Your task to perform on an android device: uninstall "ColorNote Notepad Notes" Image 0: 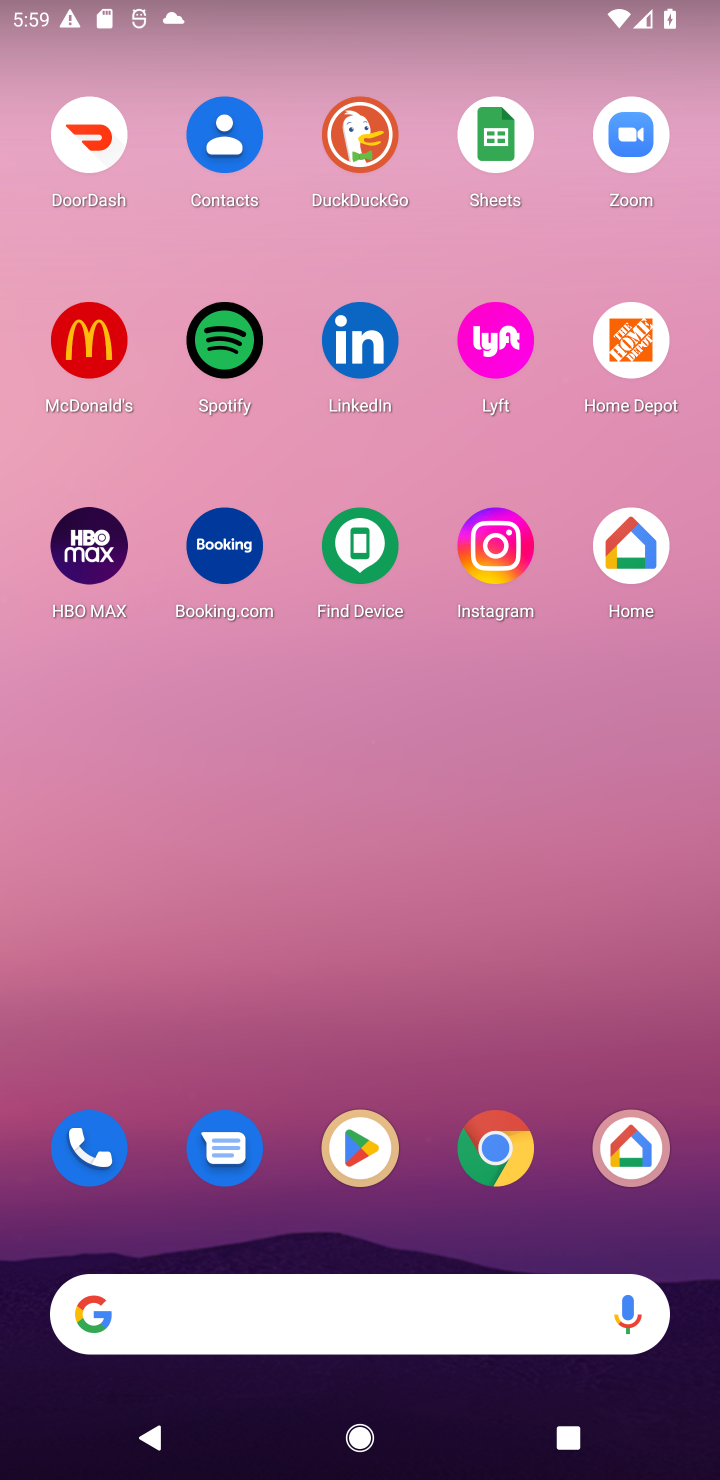
Step 0: drag from (394, 1086) to (222, 2)
Your task to perform on an android device: uninstall "ColorNote Notepad Notes" Image 1: 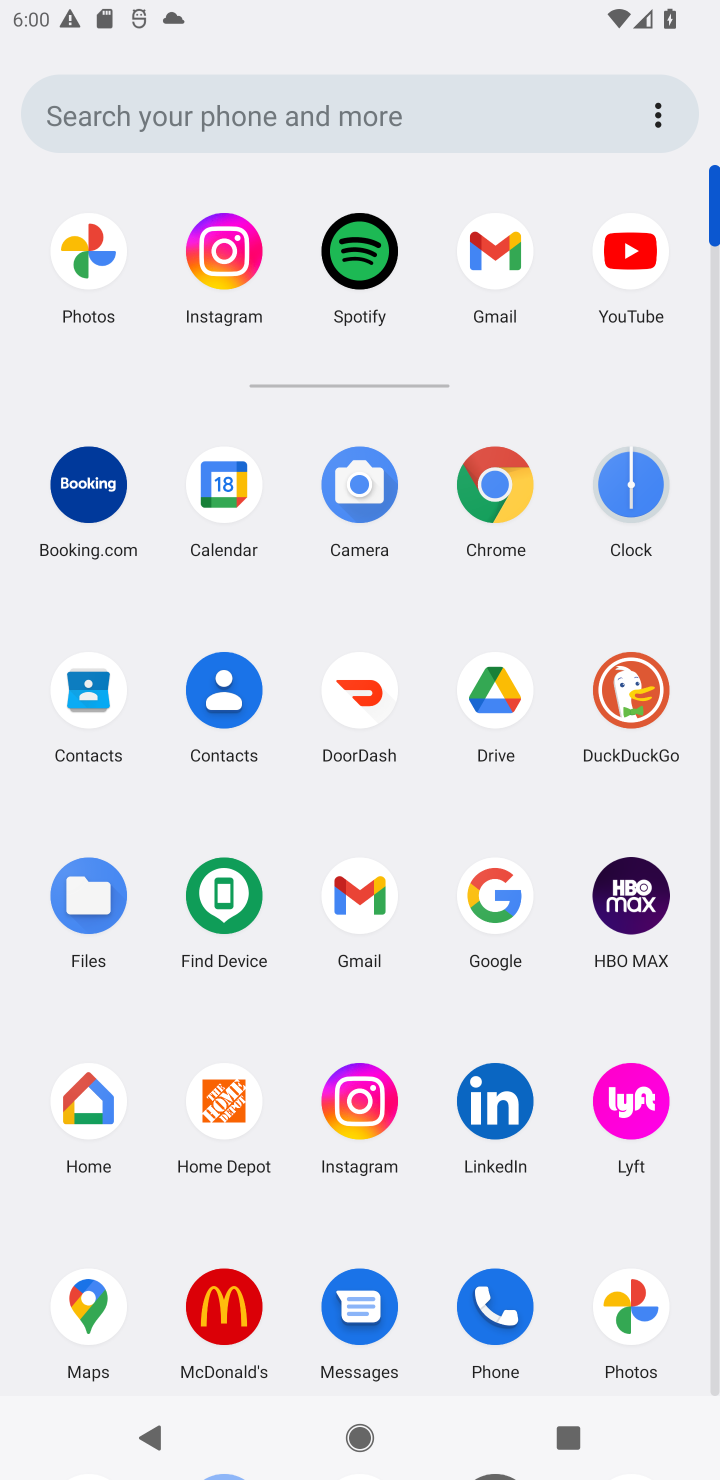
Step 1: drag from (590, 1243) to (416, 335)
Your task to perform on an android device: uninstall "ColorNote Notepad Notes" Image 2: 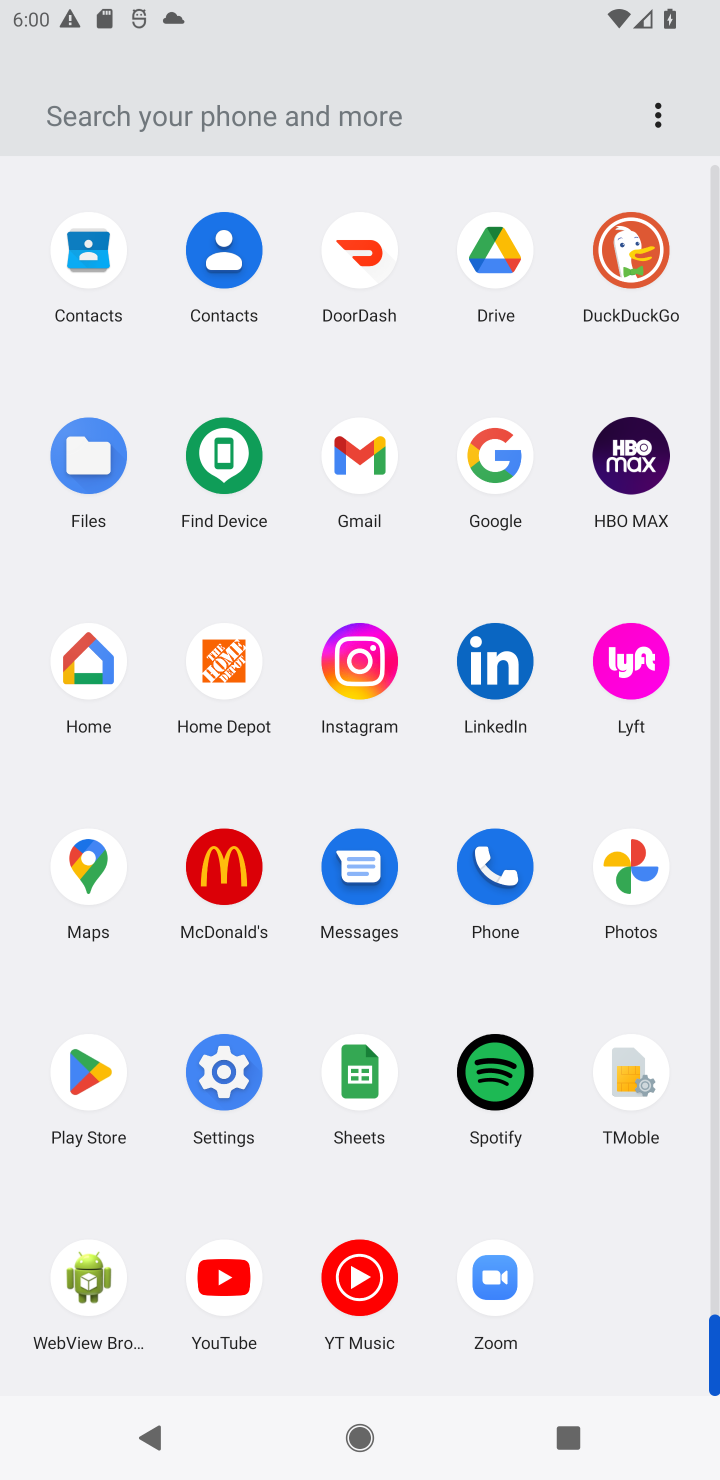
Step 2: click (80, 1072)
Your task to perform on an android device: uninstall "ColorNote Notepad Notes" Image 3: 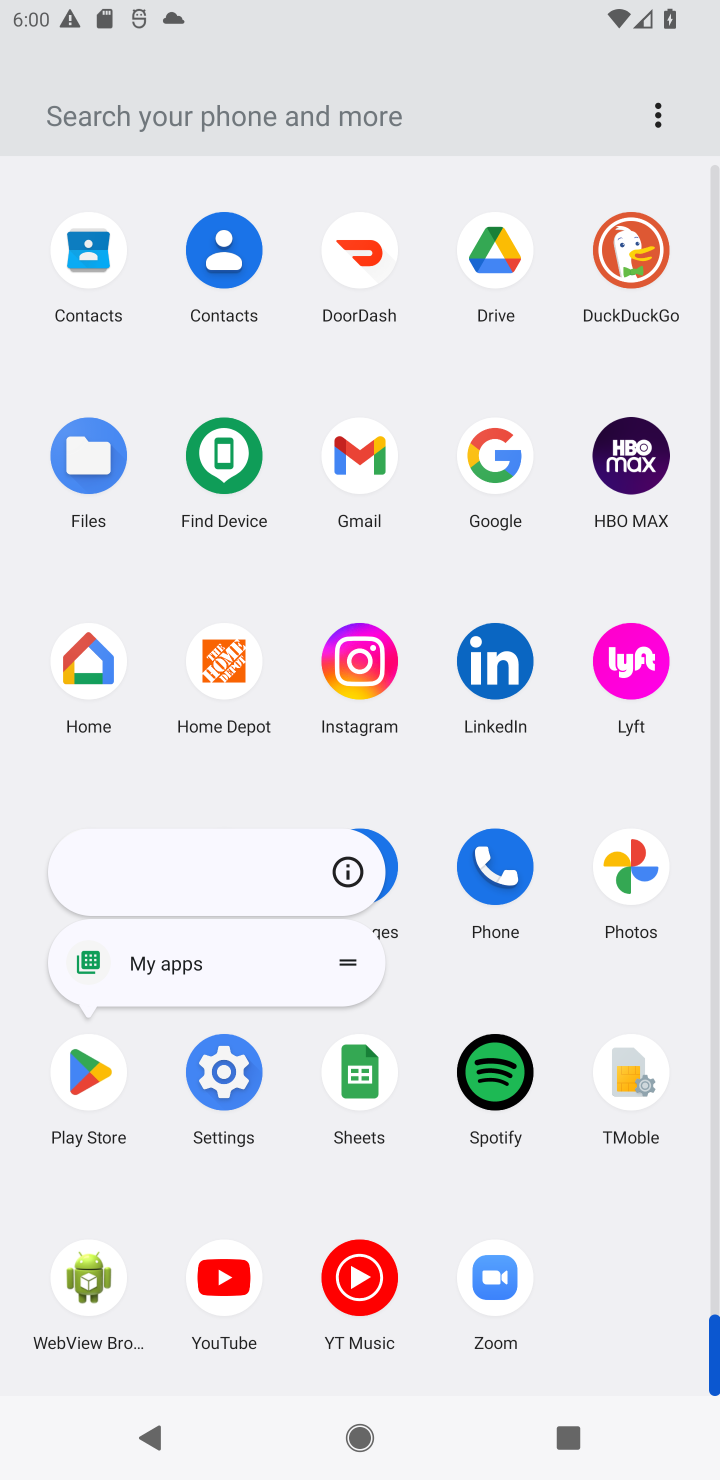
Step 3: click (81, 1073)
Your task to perform on an android device: uninstall "ColorNote Notepad Notes" Image 4: 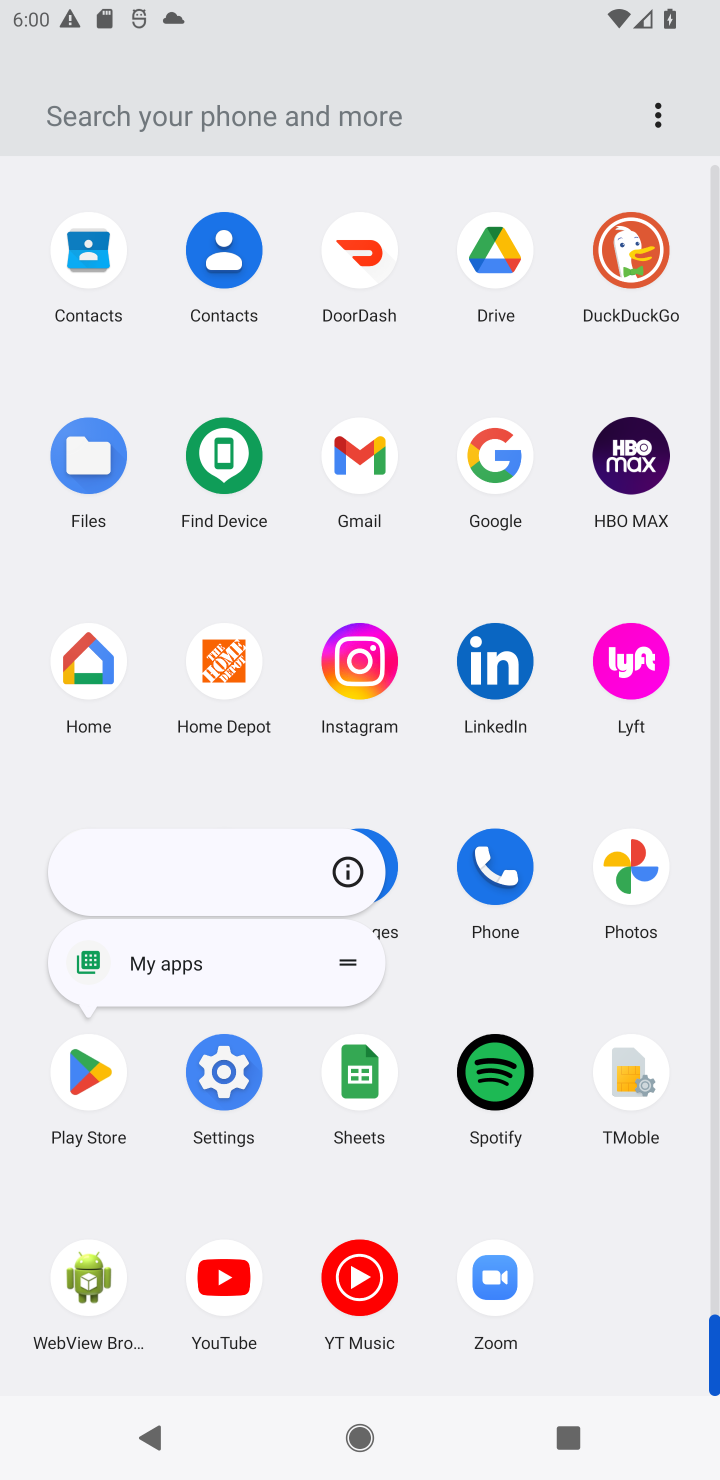
Step 4: click (81, 1072)
Your task to perform on an android device: uninstall "ColorNote Notepad Notes" Image 5: 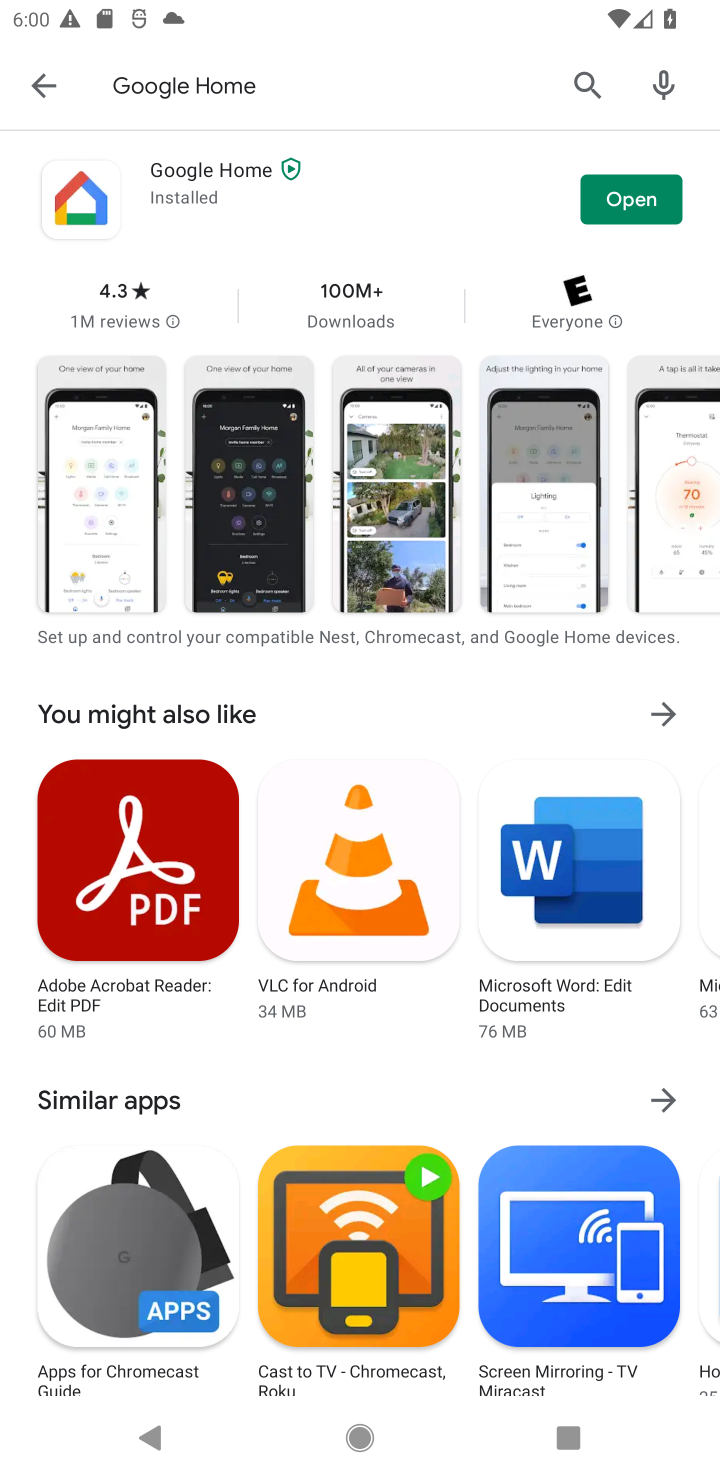
Step 5: press back button
Your task to perform on an android device: uninstall "ColorNote Notepad Notes" Image 6: 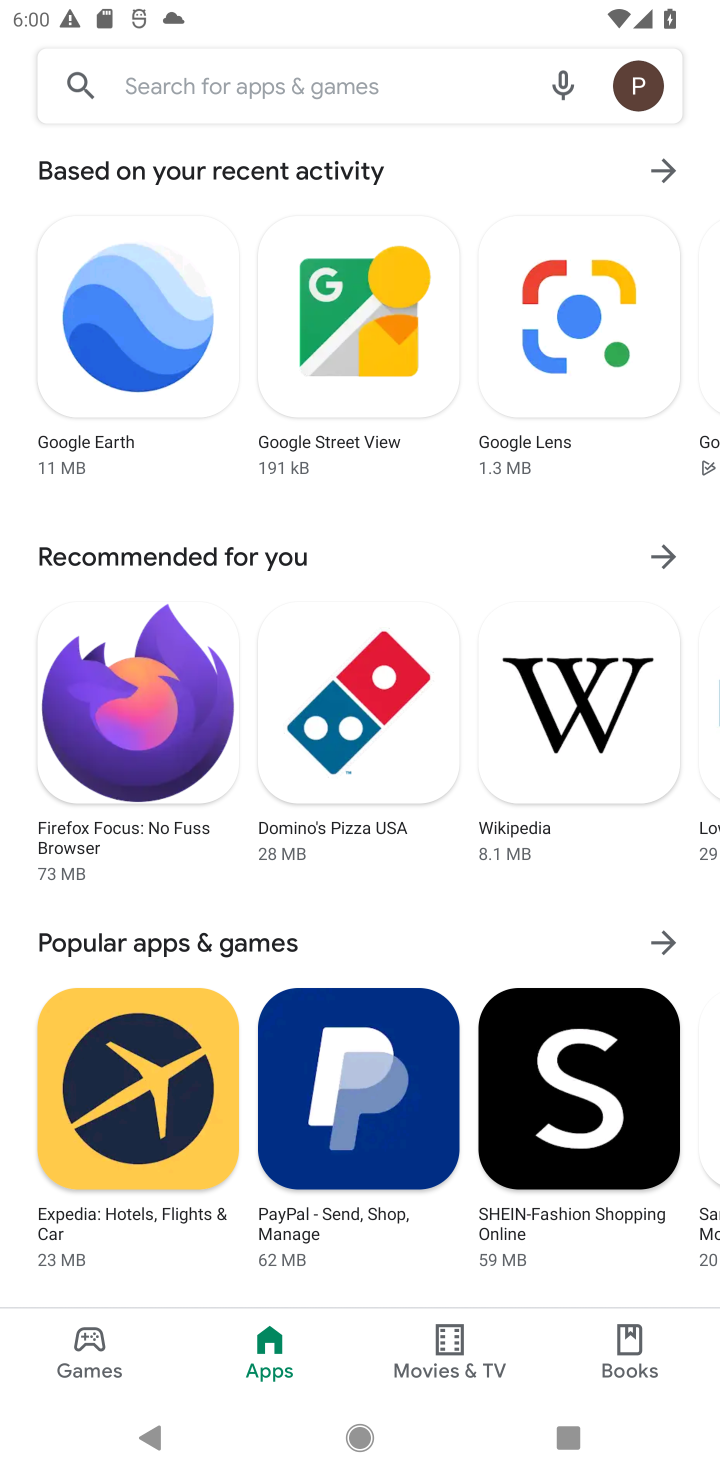
Step 6: click (255, 105)
Your task to perform on an android device: uninstall "ColorNote Notepad Notes" Image 7: 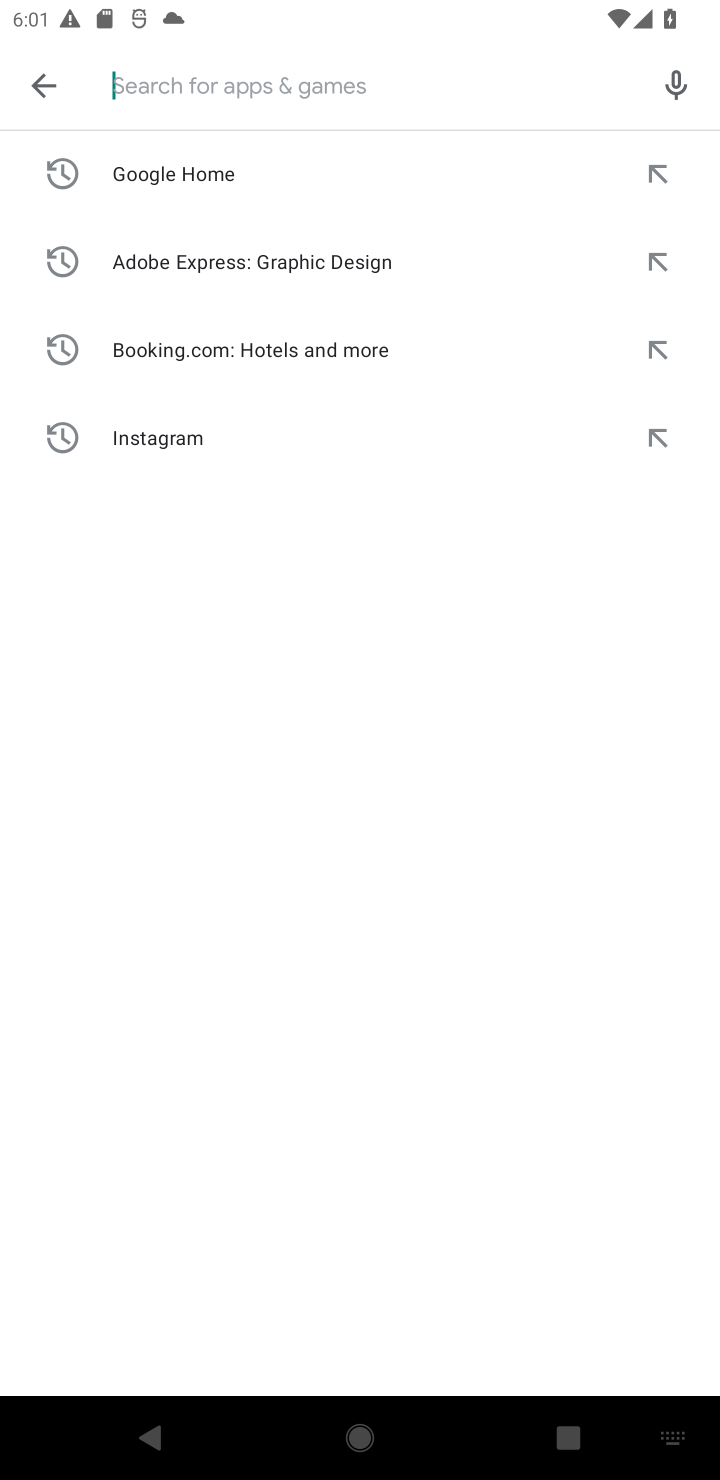
Step 7: type "ColorNote Notepad Notes"
Your task to perform on an android device: uninstall "ColorNote Notepad Notes" Image 8: 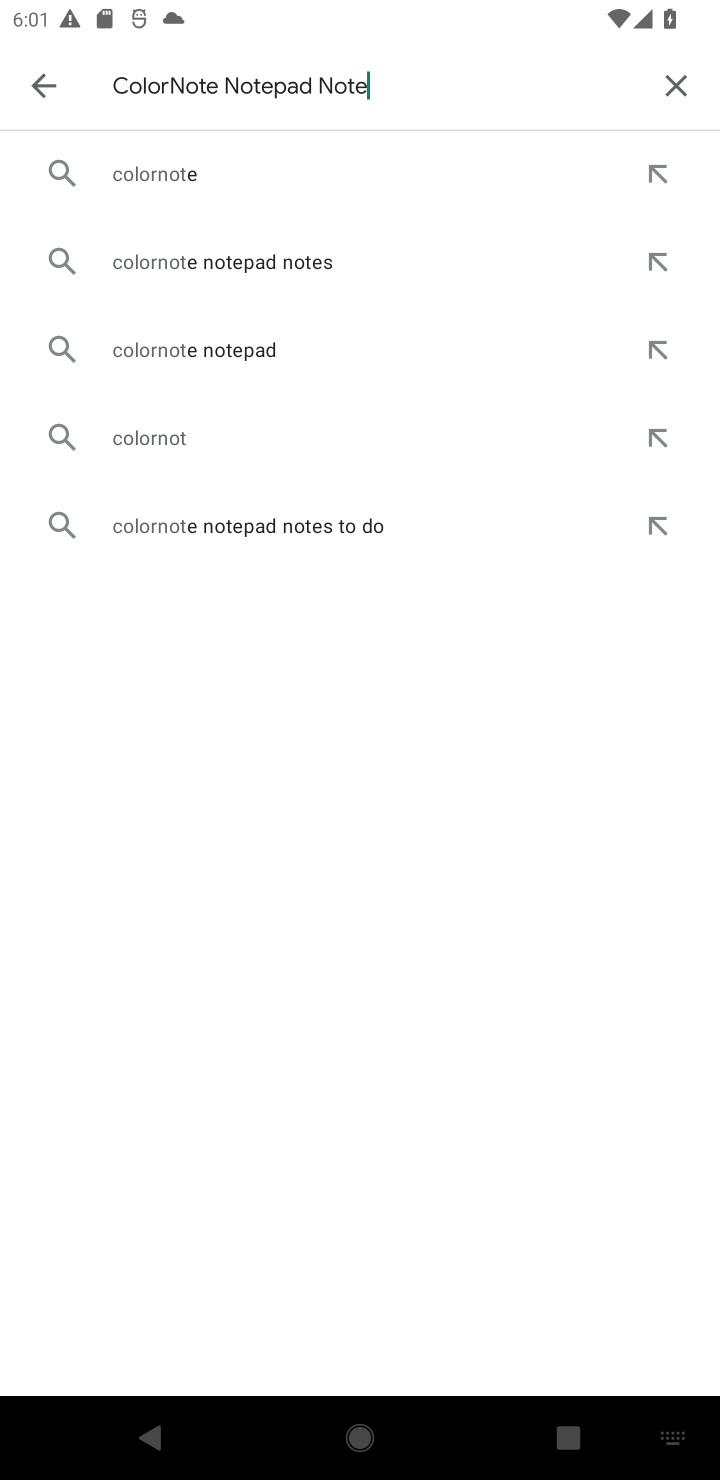
Step 8: press enter
Your task to perform on an android device: uninstall "ColorNote Notepad Notes" Image 9: 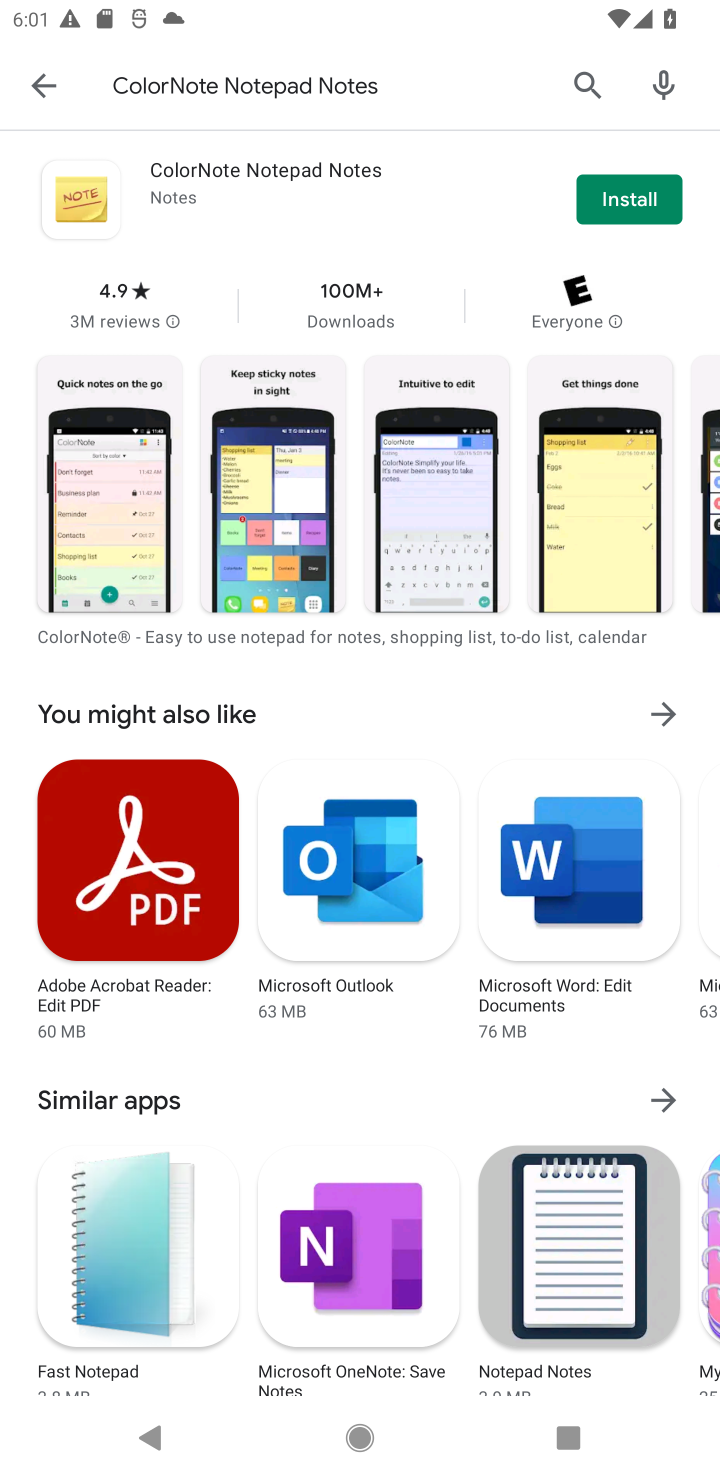
Step 9: task complete